Your task to perform on an android device: Is it going to rain today? Image 0: 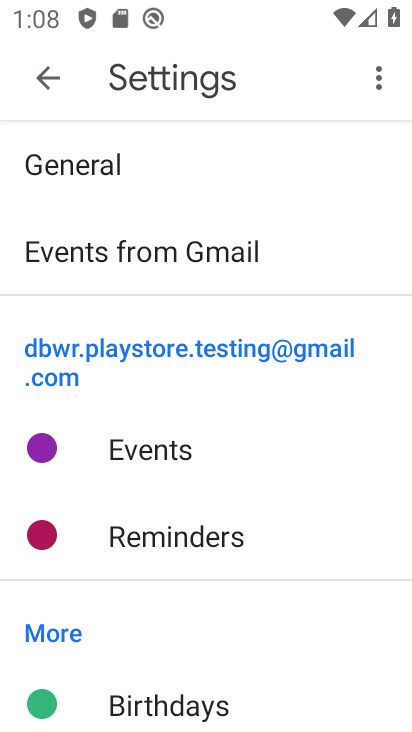
Step 0: press home button
Your task to perform on an android device: Is it going to rain today? Image 1: 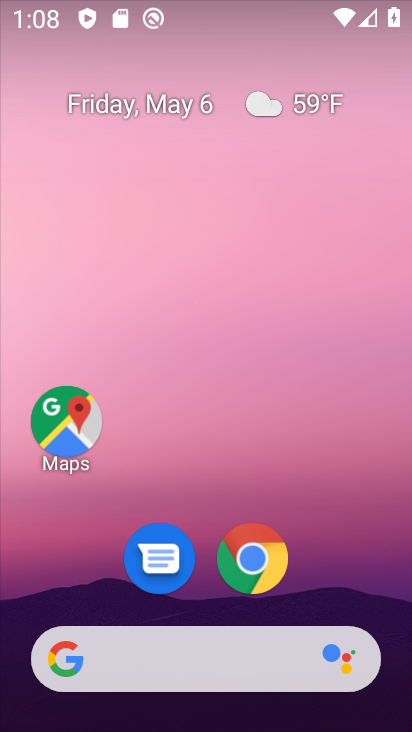
Step 1: drag from (201, 725) to (201, 109)
Your task to perform on an android device: Is it going to rain today? Image 2: 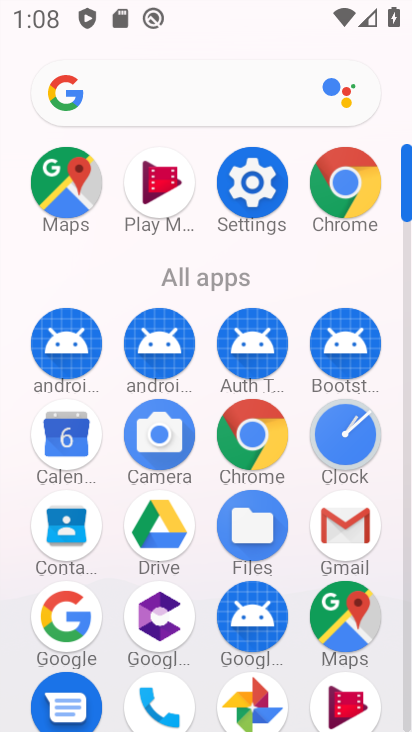
Step 2: click (60, 611)
Your task to perform on an android device: Is it going to rain today? Image 3: 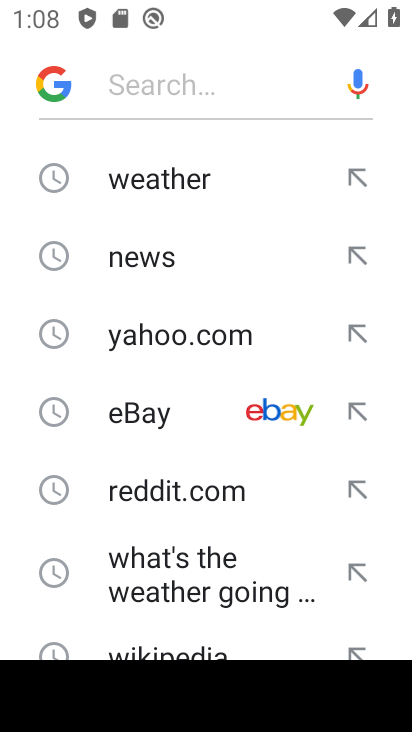
Step 3: click (136, 173)
Your task to perform on an android device: Is it going to rain today? Image 4: 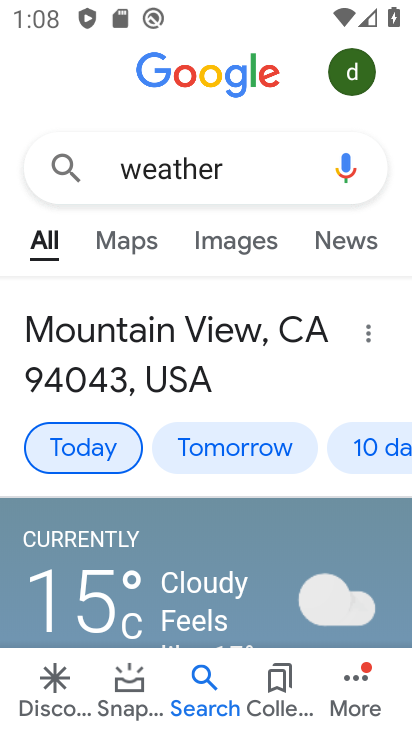
Step 4: task complete